Your task to perform on an android device: Search for pizza restaurants on Maps Image 0: 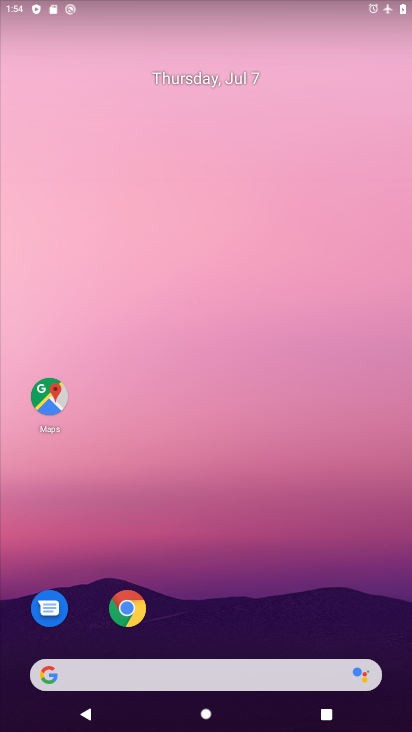
Step 0: drag from (242, 689) to (221, 84)
Your task to perform on an android device: Search for pizza restaurants on Maps Image 1: 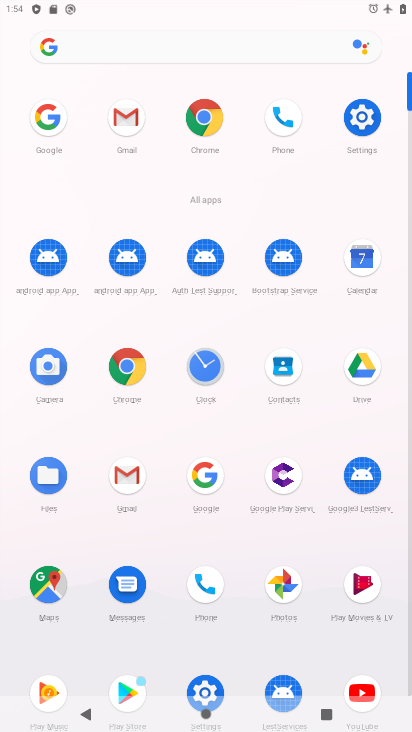
Step 1: click (48, 582)
Your task to perform on an android device: Search for pizza restaurants on Maps Image 2: 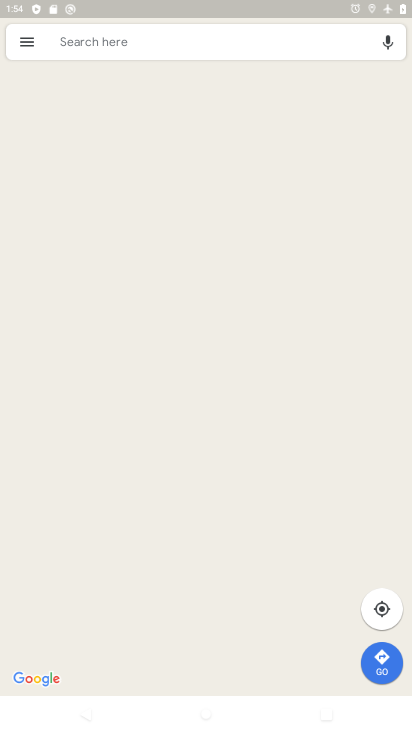
Step 2: click (138, 45)
Your task to perform on an android device: Search for pizza restaurants on Maps Image 3: 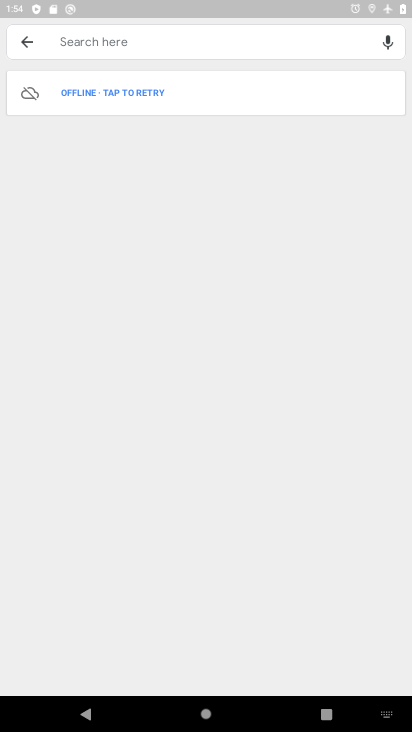
Step 3: type "pizza restaurants"
Your task to perform on an android device: Search for pizza restaurants on Maps Image 4: 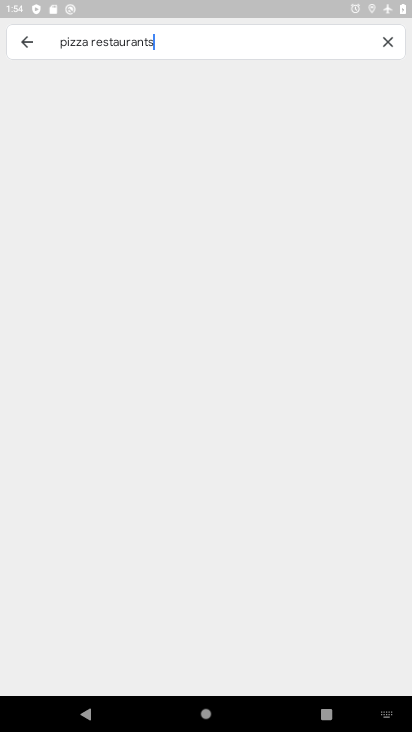
Step 4: type ""
Your task to perform on an android device: Search for pizza restaurants on Maps Image 5: 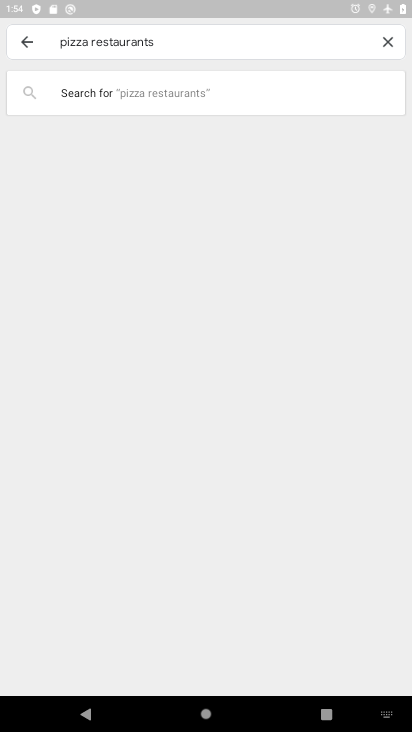
Step 5: task complete